Your task to perform on an android device: Open Maps and search for coffee Image 0: 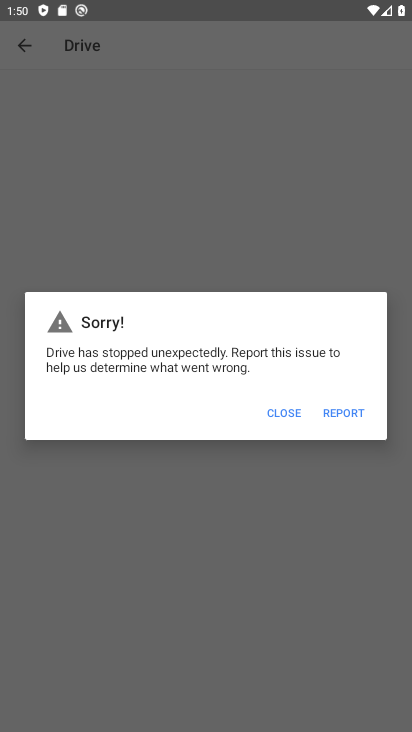
Step 0: press home button
Your task to perform on an android device: Open Maps and search for coffee Image 1: 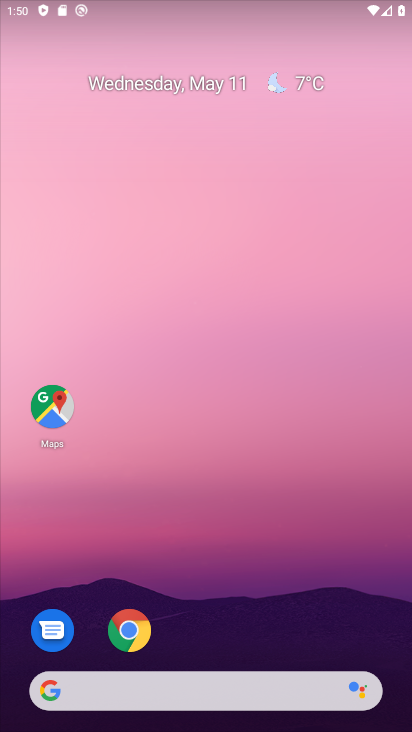
Step 1: drag from (352, 610) to (268, 58)
Your task to perform on an android device: Open Maps and search for coffee Image 2: 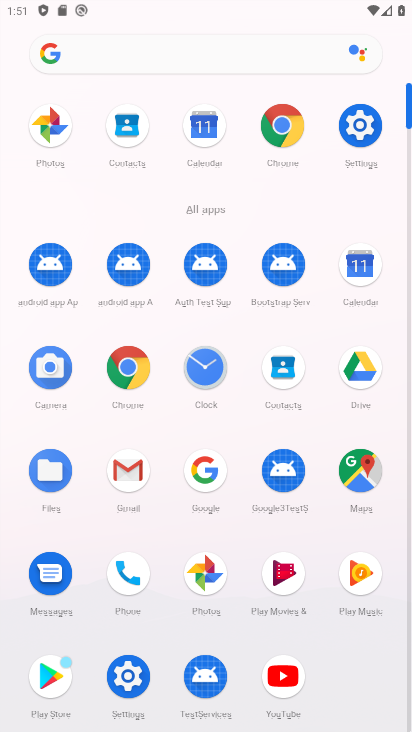
Step 2: click (353, 484)
Your task to perform on an android device: Open Maps and search for coffee Image 3: 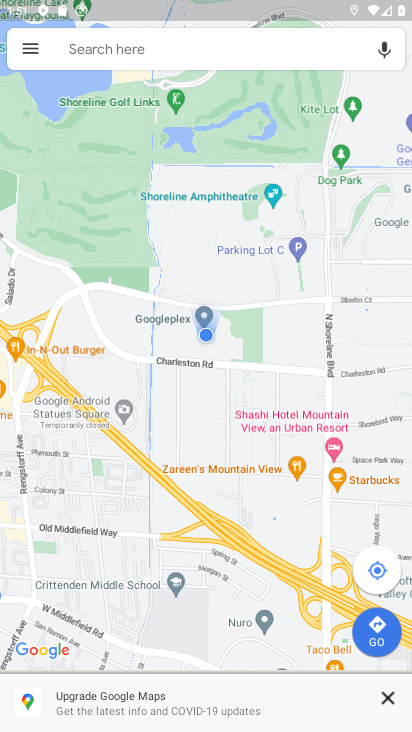
Step 3: click (151, 47)
Your task to perform on an android device: Open Maps and search for coffee Image 4: 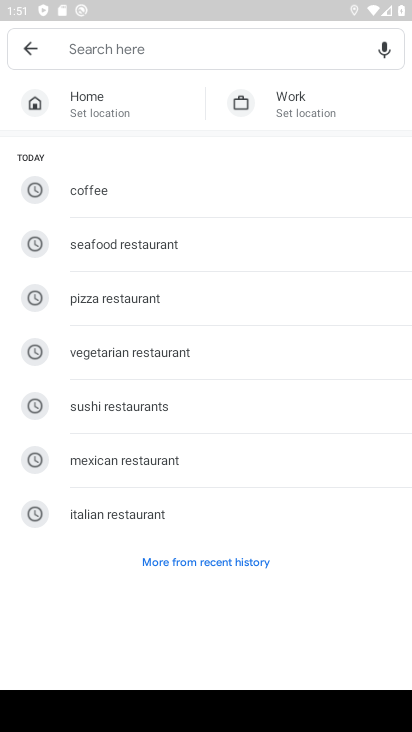
Step 4: click (144, 184)
Your task to perform on an android device: Open Maps and search for coffee Image 5: 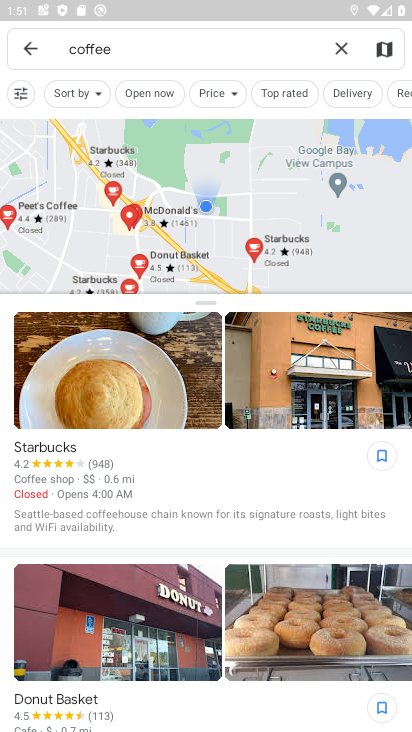
Step 5: task complete